Your task to perform on an android device: see tabs open on other devices in the chrome app Image 0: 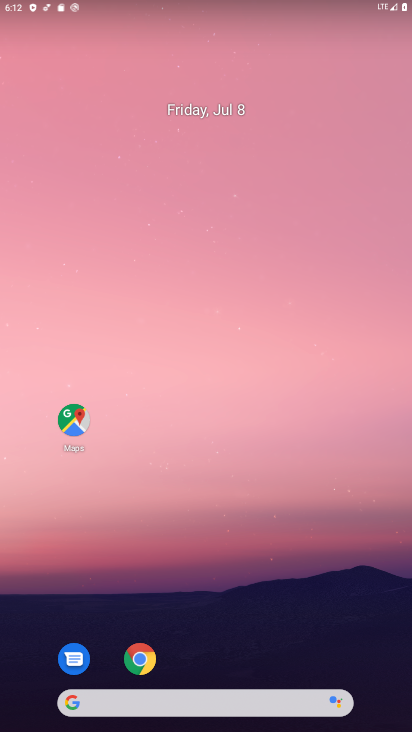
Step 0: drag from (313, 697) to (302, 61)
Your task to perform on an android device: see tabs open on other devices in the chrome app Image 1: 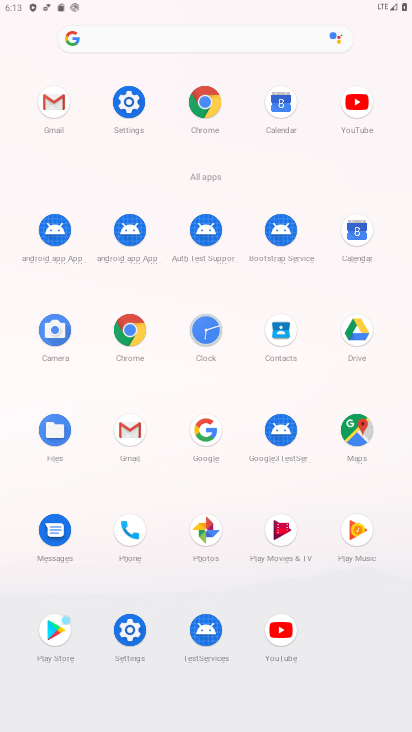
Step 1: click (126, 333)
Your task to perform on an android device: see tabs open on other devices in the chrome app Image 2: 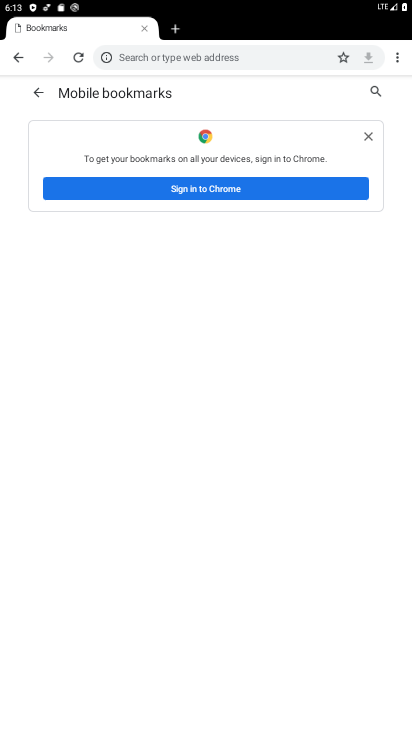
Step 2: task complete